Your task to perform on an android device: see creations saved in the google photos Image 0: 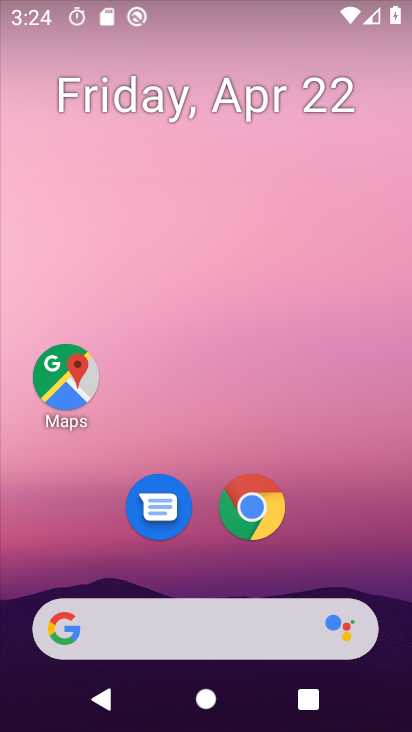
Step 0: drag from (354, 495) to (407, 60)
Your task to perform on an android device: see creations saved in the google photos Image 1: 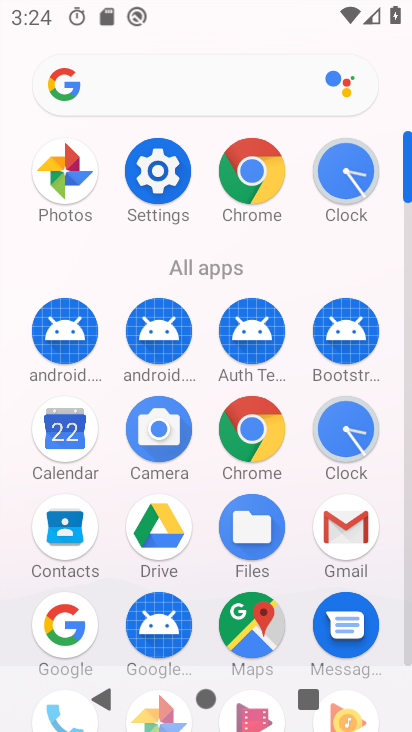
Step 1: click (70, 187)
Your task to perform on an android device: see creations saved in the google photos Image 2: 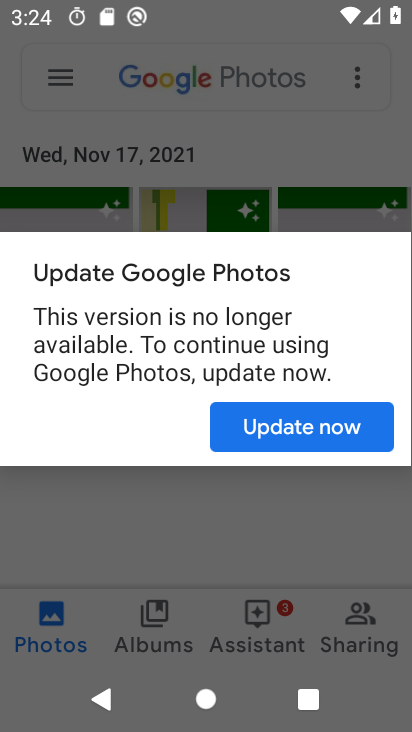
Step 2: click (329, 424)
Your task to perform on an android device: see creations saved in the google photos Image 3: 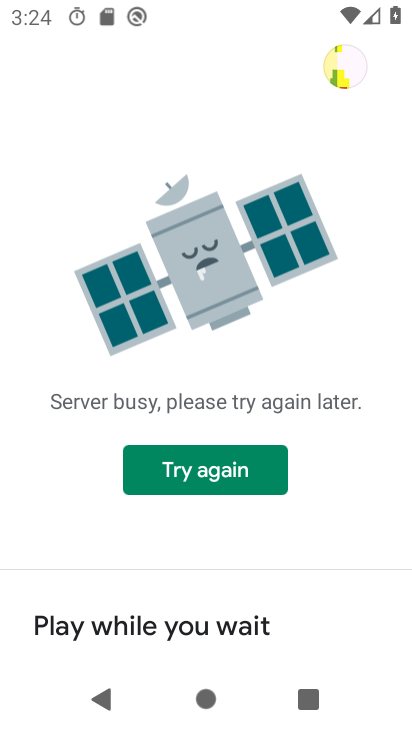
Step 3: click (238, 470)
Your task to perform on an android device: see creations saved in the google photos Image 4: 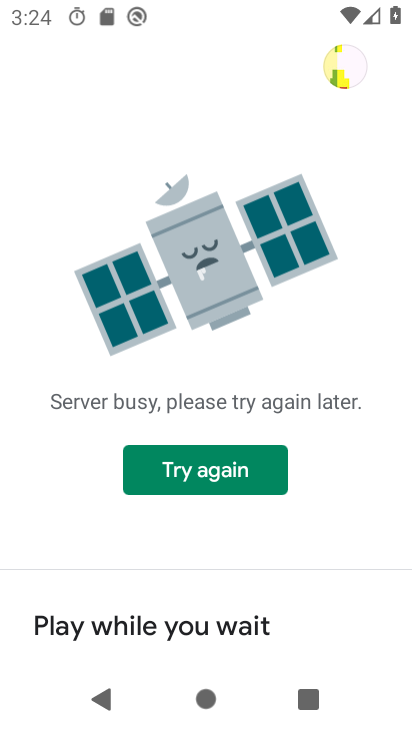
Step 4: click (192, 460)
Your task to perform on an android device: see creations saved in the google photos Image 5: 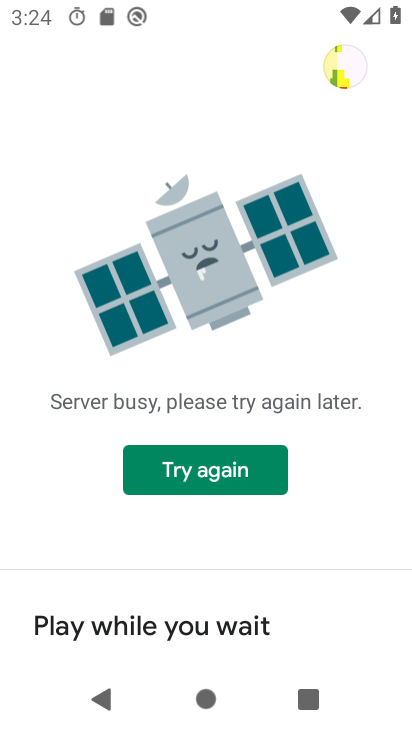
Step 5: click (192, 459)
Your task to perform on an android device: see creations saved in the google photos Image 6: 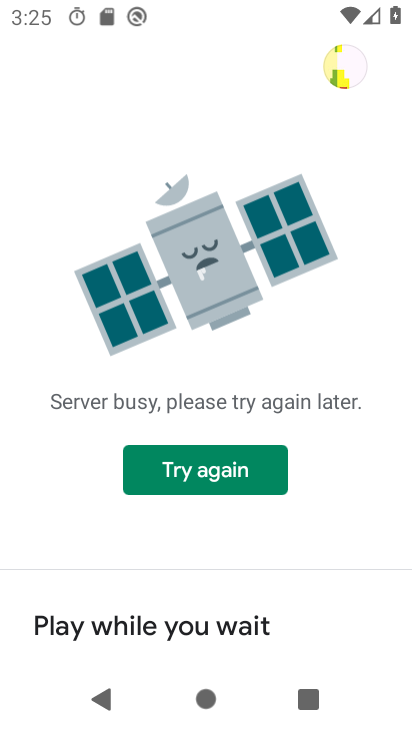
Step 6: click (192, 458)
Your task to perform on an android device: see creations saved in the google photos Image 7: 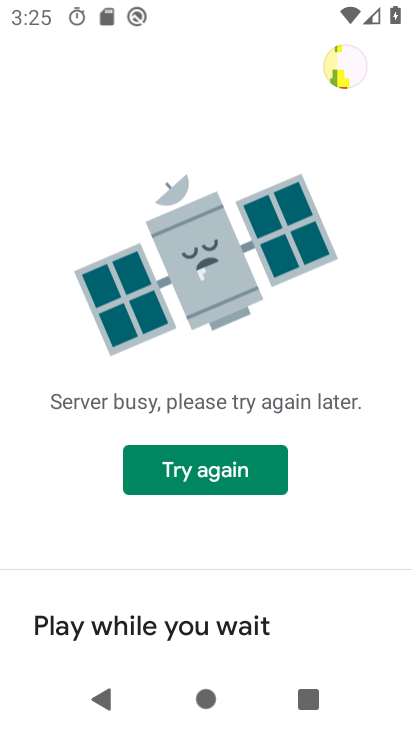
Step 7: click (200, 472)
Your task to perform on an android device: see creations saved in the google photos Image 8: 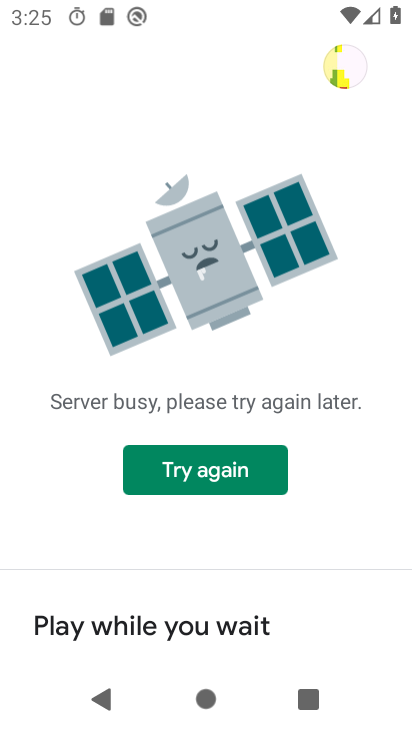
Step 8: click (200, 470)
Your task to perform on an android device: see creations saved in the google photos Image 9: 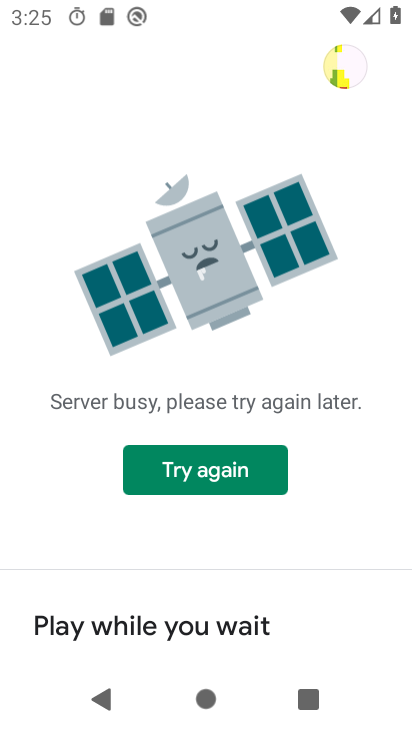
Step 9: task complete